Your task to perform on an android device: change the clock display to analog Image 0: 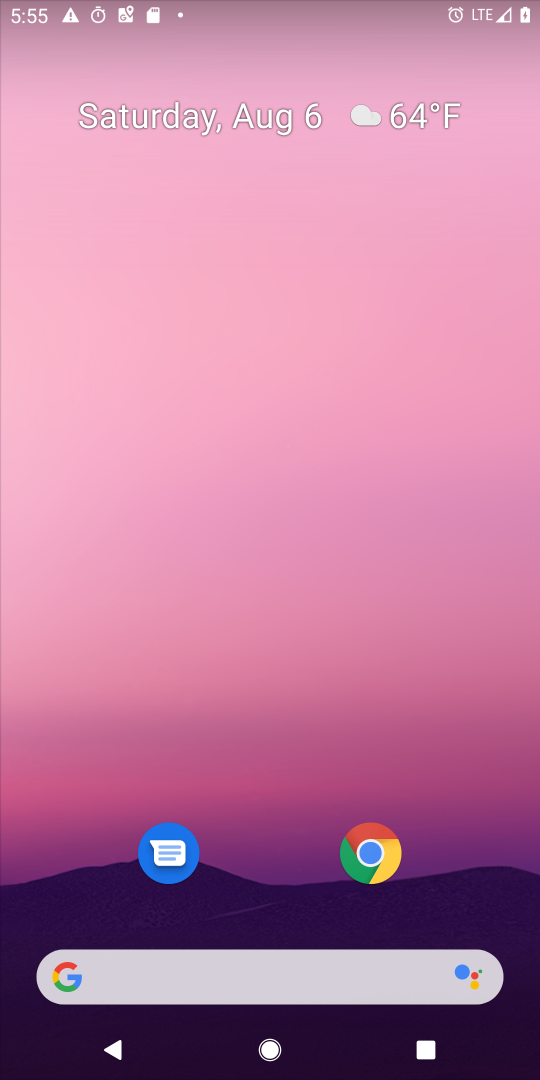
Step 0: drag from (284, 912) to (384, 151)
Your task to perform on an android device: change the clock display to analog Image 1: 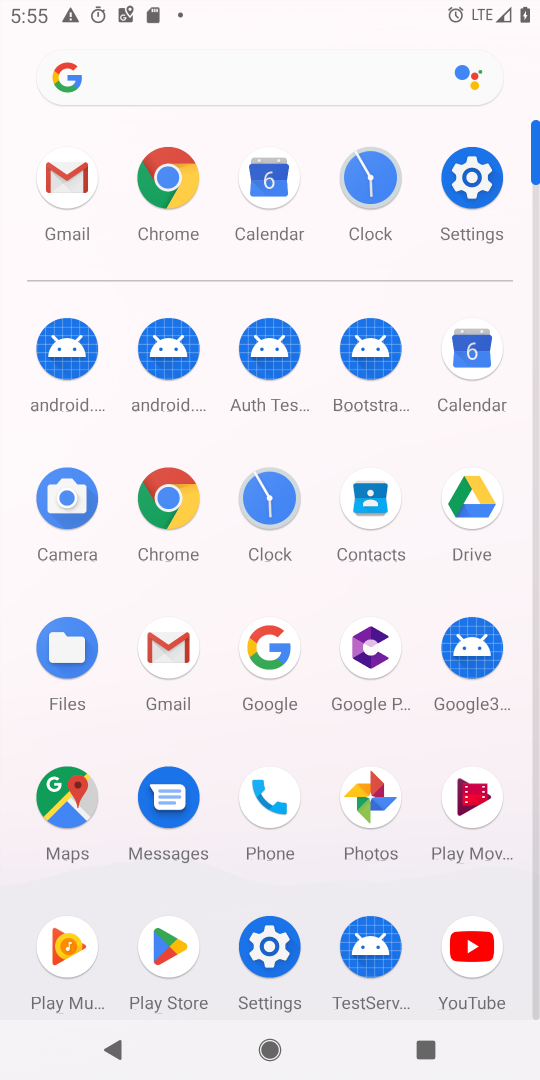
Step 1: click (371, 179)
Your task to perform on an android device: change the clock display to analog Image 2: 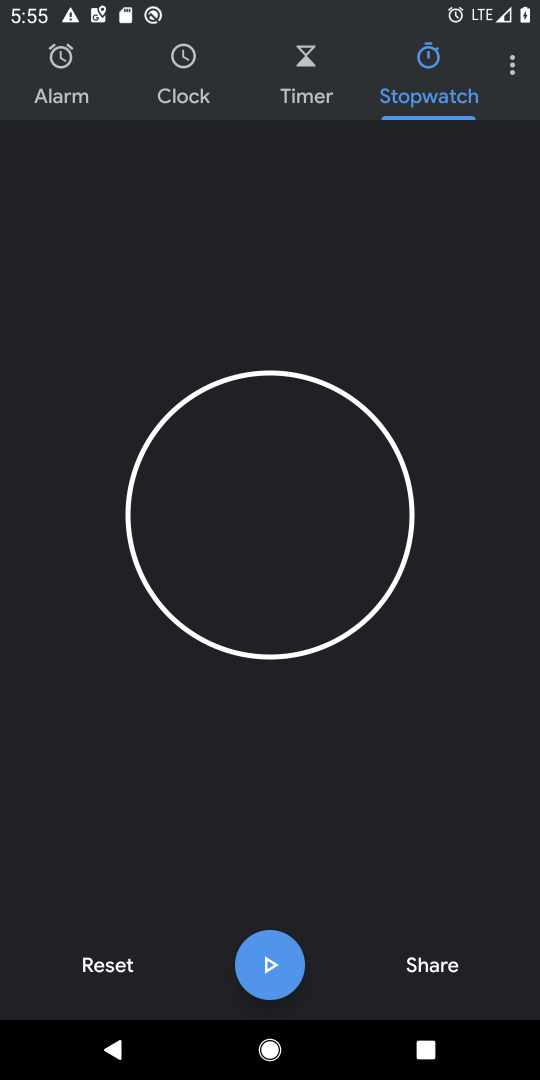
Step 2: click (505, 63)
Your task to perform on an android device: change the clock display to analog Image 3: 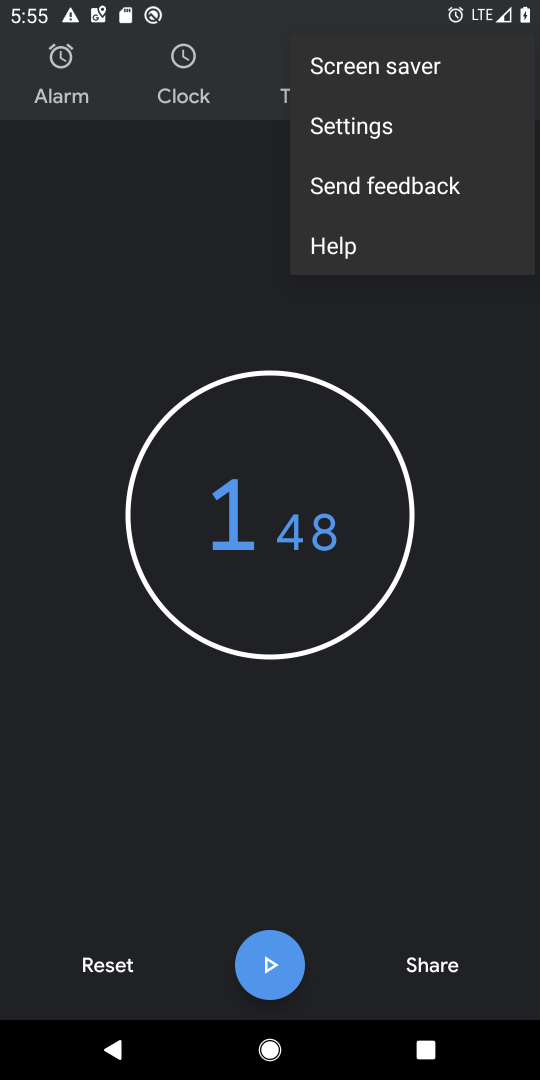
Step 3: click (384, 121)
Your task to perform on an android device: change the clock display to analog Image 4: 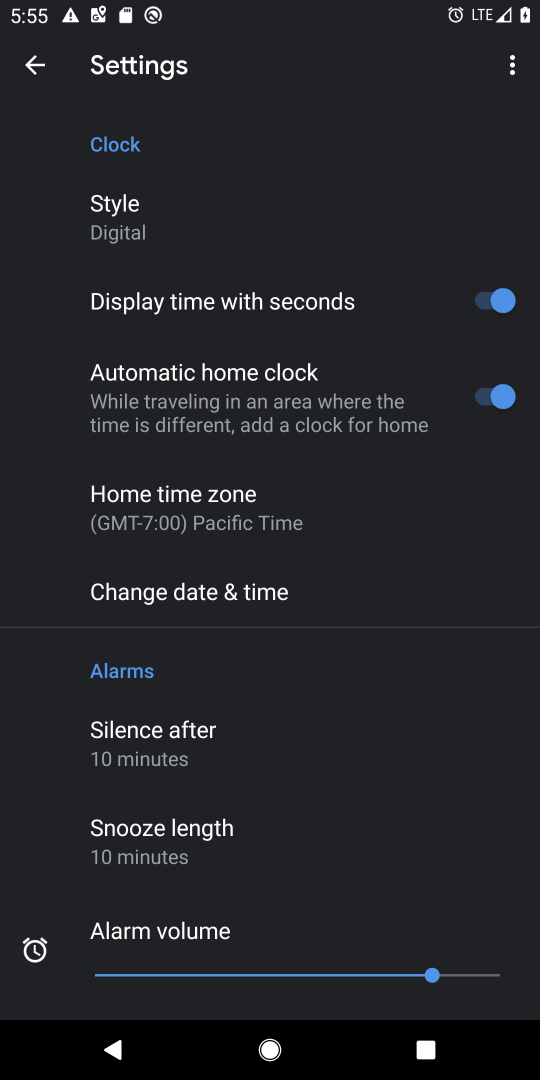
Step 4: click (167, 220)
Your task to perform on an android device: change the clock display to analog Image 5: 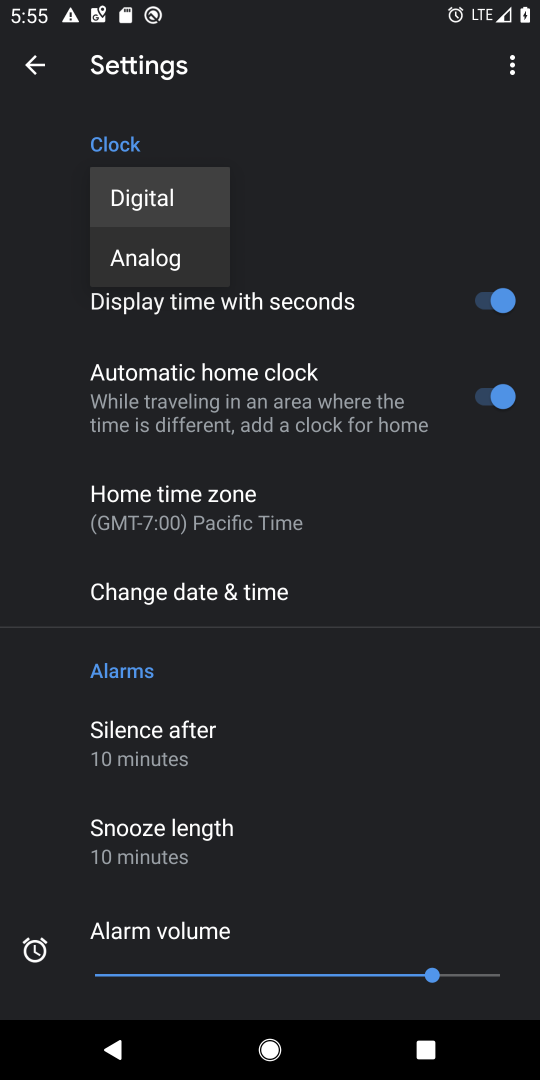
Step 5: click (169, 254)
Your task to perform on an android device: change the clock display to analog Image 6: 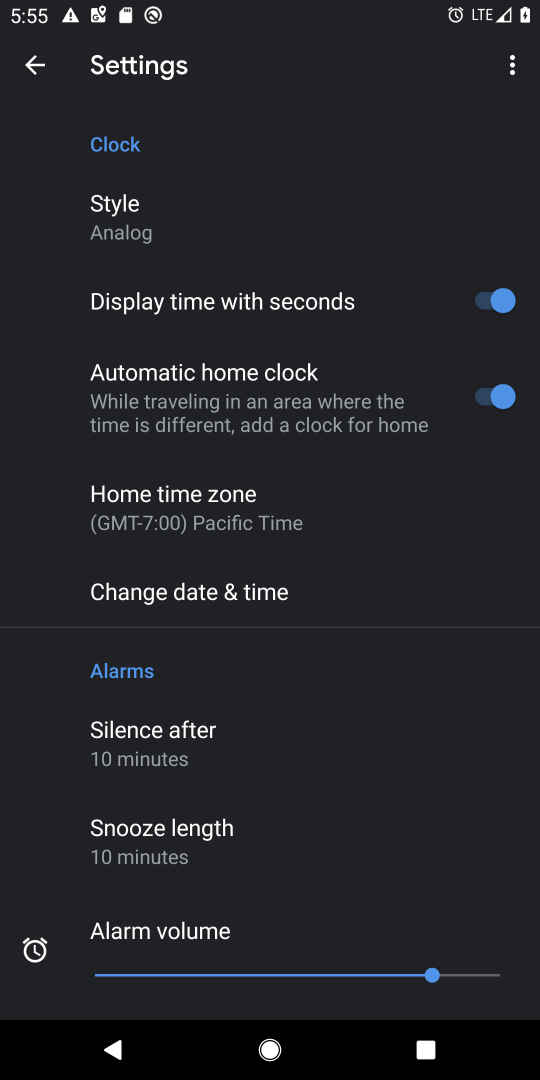
Step 6: task complete